Your task to perform on an android device: Search for Mexican restaurants on Maps Image 0: 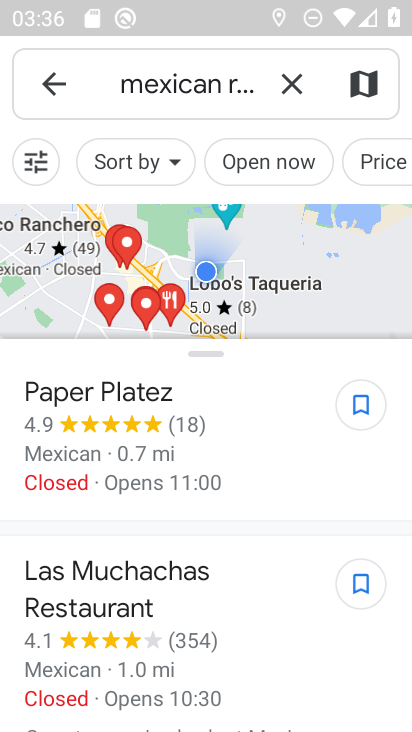
Step 0: task complete